Your task to perform on an android device: Open Chrome and go to settings Image 0: 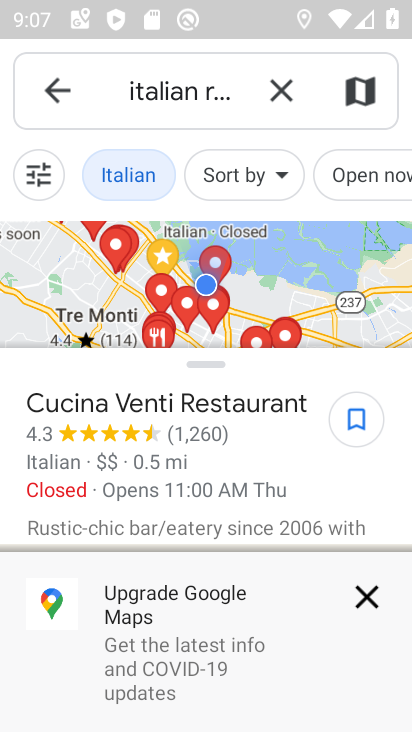
Step 0: press home button
Your task to perform on an android device: Open Chrome and go to settings Image 1: 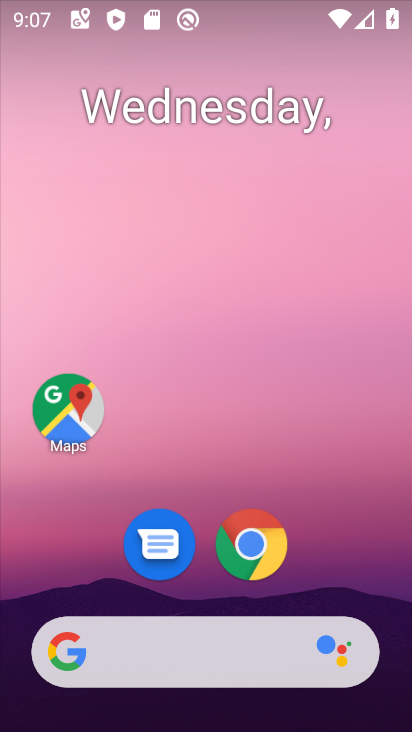
Step 1: click (240, 548)
Your task to perform on an android device: Open Chrome and go to settings Image 2: 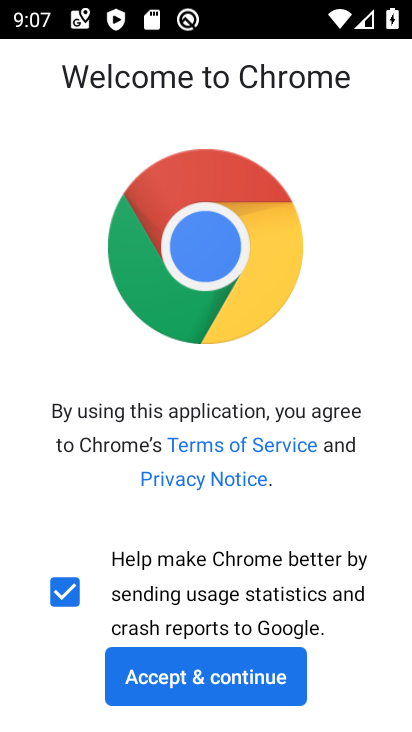
Step 2: click (169, 679)
Your task to perform on an android device: Open Chrome and go to settings Image 3: 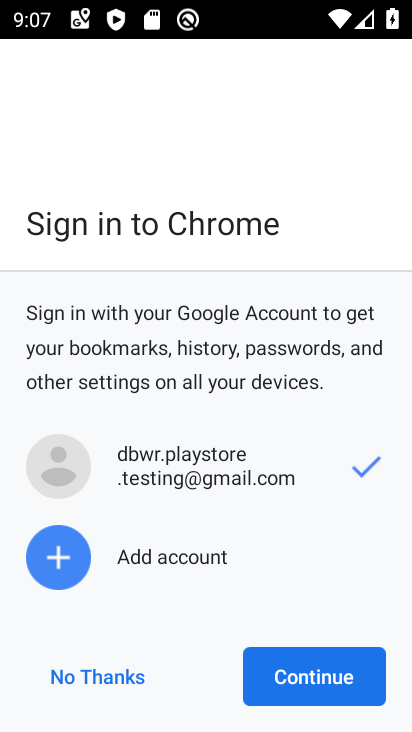
Step 3: click (292, 686)
Your task to perform on an android device: Open Chrome and go to settings Image 4: 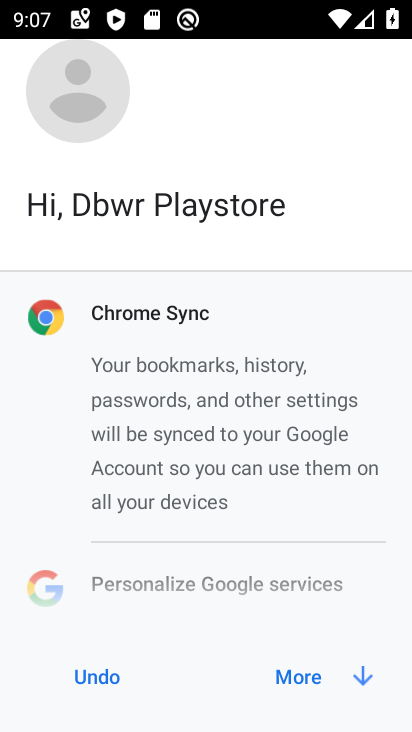
Step 4: click (292, 686)
Your task to perform on an android device: Open Chrome and go to settings Image 5: 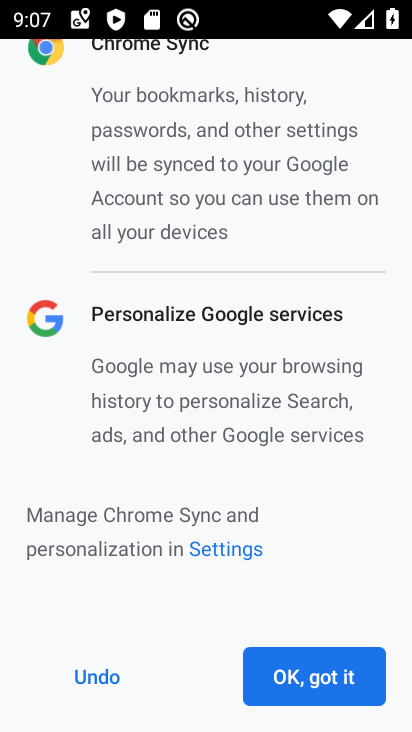
Step 5: click (292, 686)
Your task to perform on an android device: Open Chrome and go to settings Image 6: 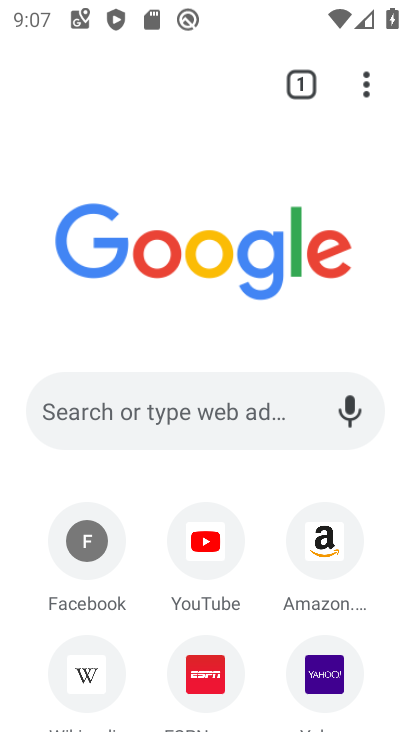
Step 6: click (377, 91)
Your task to perform on an android device: Open Chrome and go to settings Image 7: 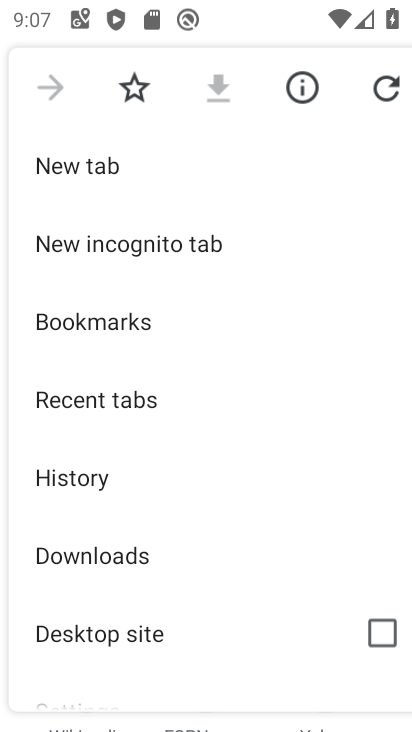
Step 7: drag from (90, 603) to (151, 283)
Your task to perform on an android device: Open Chrome and go to settings Image 8: 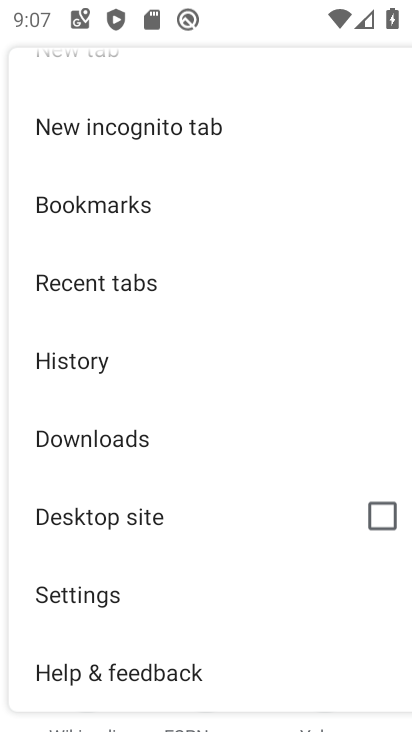
Step 8: click (61, 582)
Your task to perform on an android device: Open Chrome and go to settings Image 9: 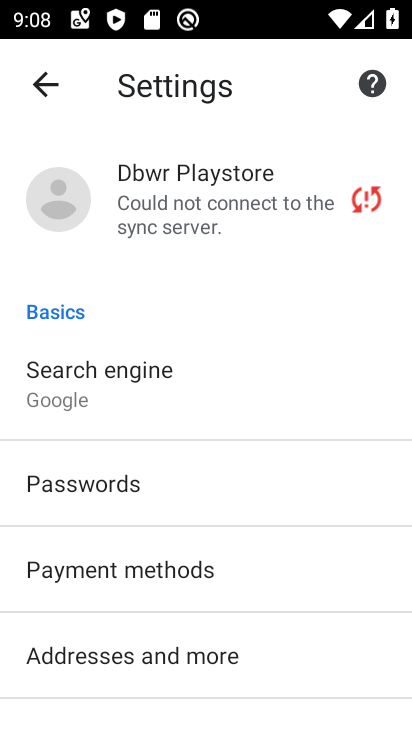
Step 9: task complete